Your task to perform on an android device: check google app version Image 0: 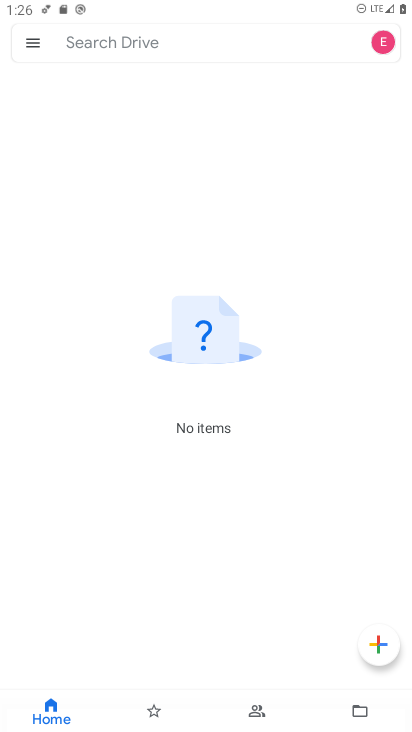
Step 0: press home button
Your task to perform on an android device: check google app version Image 1: 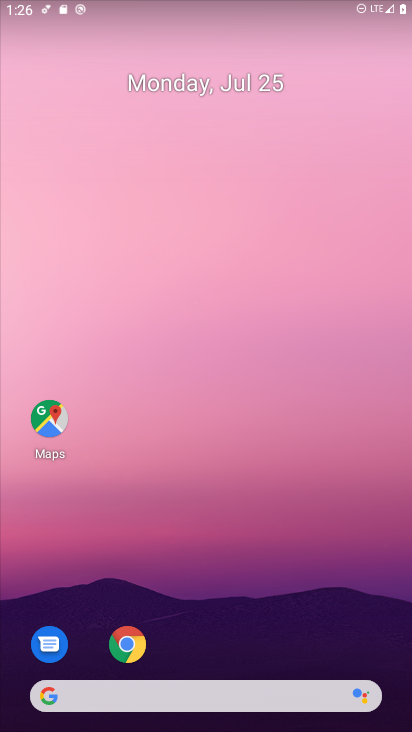
Step 1: drag from (199, 731) to (199, 95)
Your task to perform on an android device: check google app version Image 2: 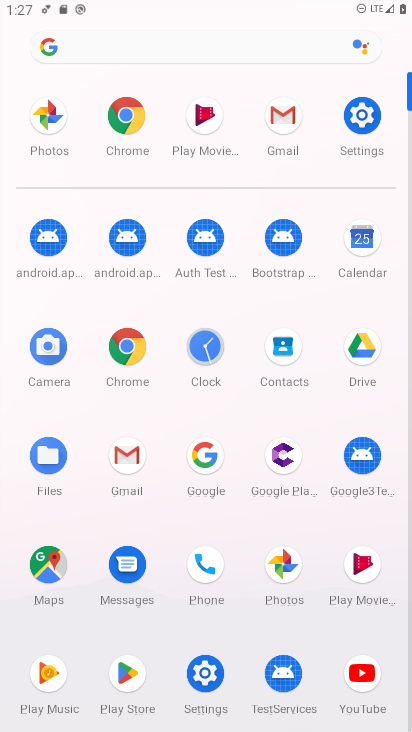
Step 2: click (202, 459)
Your task to perform on an android device: check google app version Image 3: 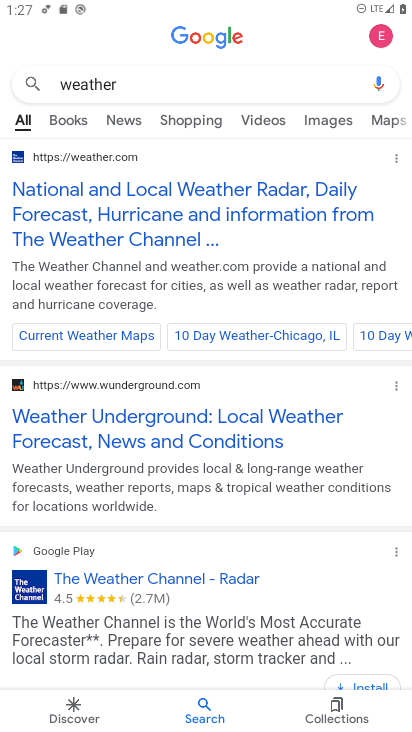
Step 3: click (382, 39)
Your task to perform on an android device: check google app version Image 4: 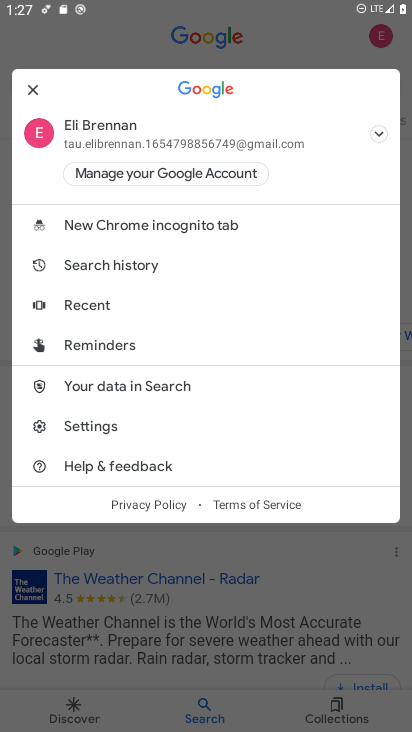
Step 4: click (105, 424)
Your task to perform on an android device: check google app version Image 5: 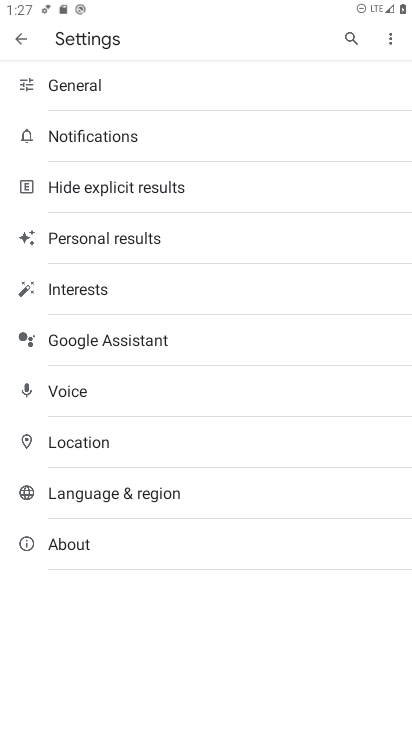
Step 5: click (58, 543)
Your task to perform on an android device: check google app version Image 6: 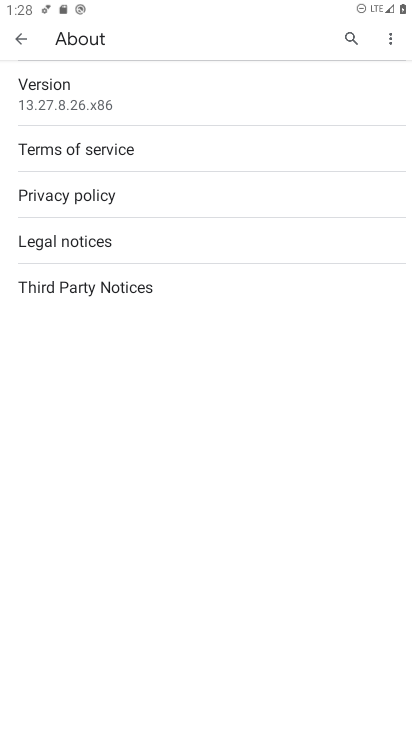
Step 6: click (61, 94)
Your task to perform on an android device: check google app version Image 7: 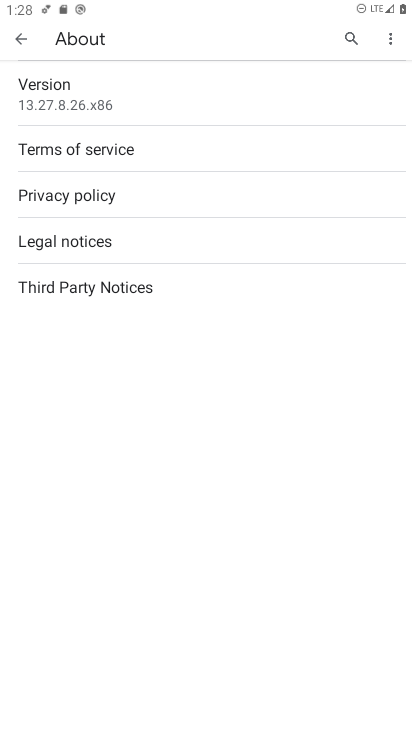
Step 7: task complete